Your task to perform on an android device: toggle sleep mode Image 0: 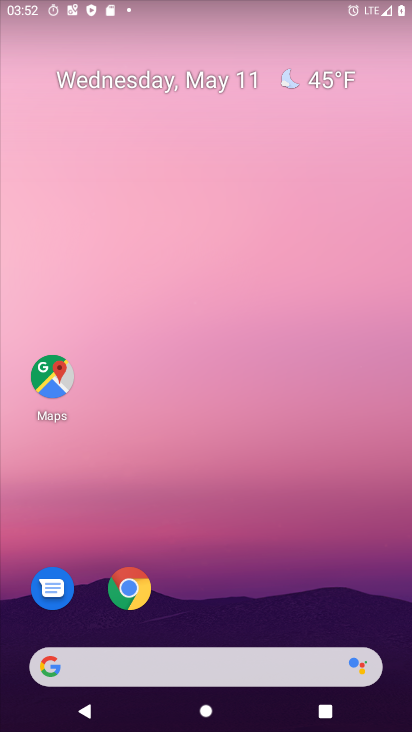
Step 0: drag from (220, 606) to (226, 178)
Your task to perform on an android device: toggle sleep mode Image 1: 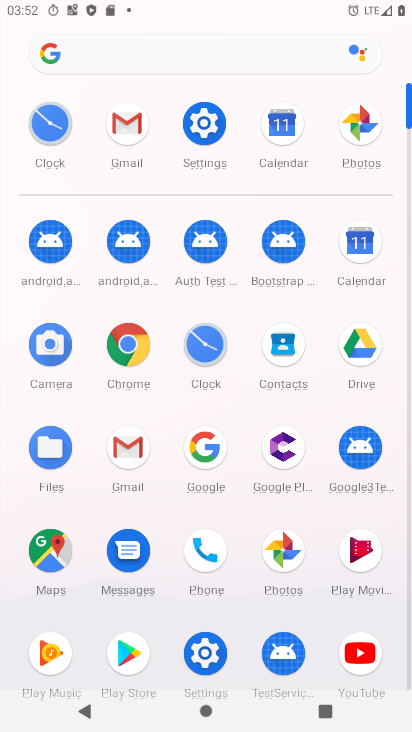
Step 1: click (204, 143)
Your task to perform on an android device: toggle sleep mode Image 2: 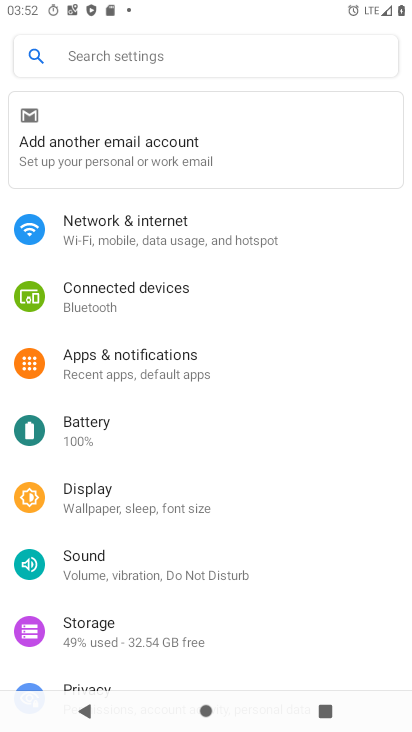
Step 2: click (118, 504)
Your task to perform on an android device: toggle sleep mode Image 3: 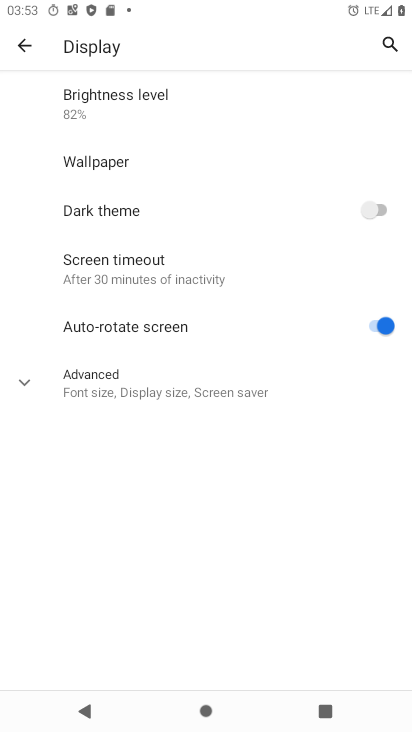
Step 3: click (139, 283)
Your task to perform on an android device: toggle sleep mode Image 4: 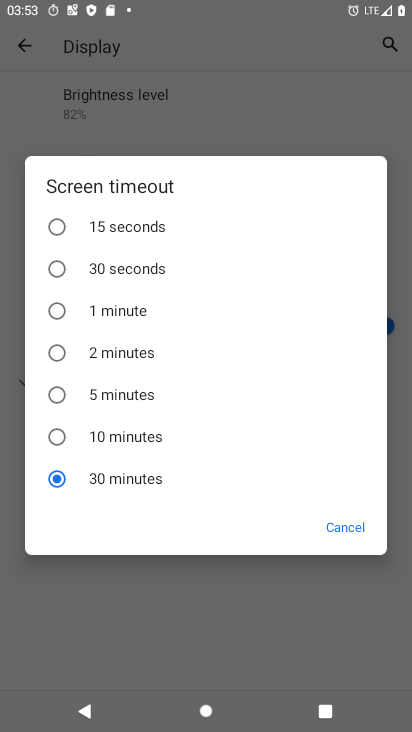
Step 4: click (140, 275)
Your task to perform on an android device: toggle sleep mode Image 5: 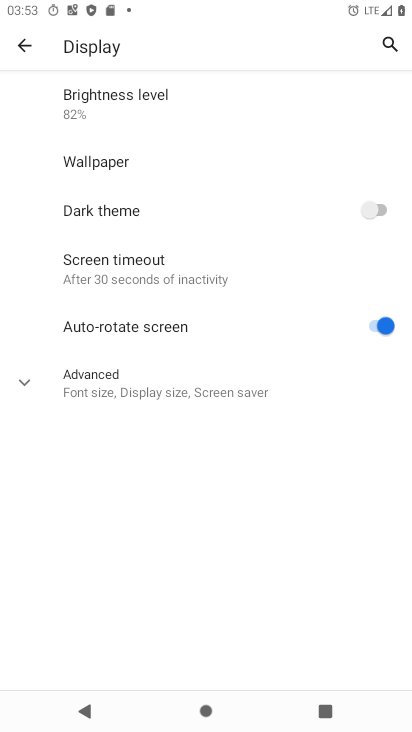
Step 5: task complete